Your task to perform on an android device: See recent photos Image 0: 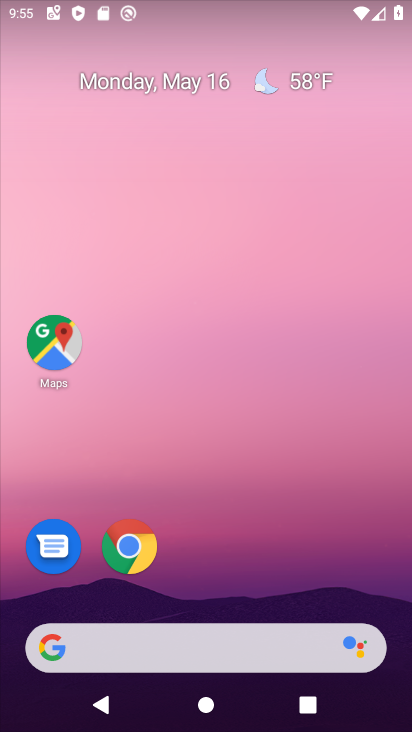
Step 0: drag from (244, 569) to (259, 105)
Your task to perform on an android device: See recent photos Image 1: 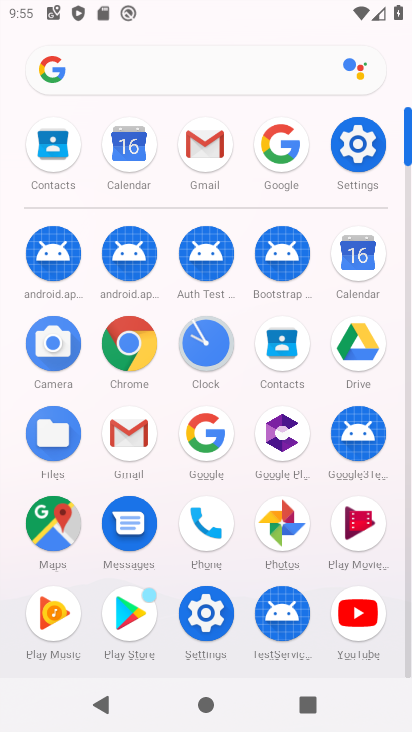
Step 1: drag from (240, 482) to (267, 349)
Your task to perform on an android device: See recent photos Image 2: 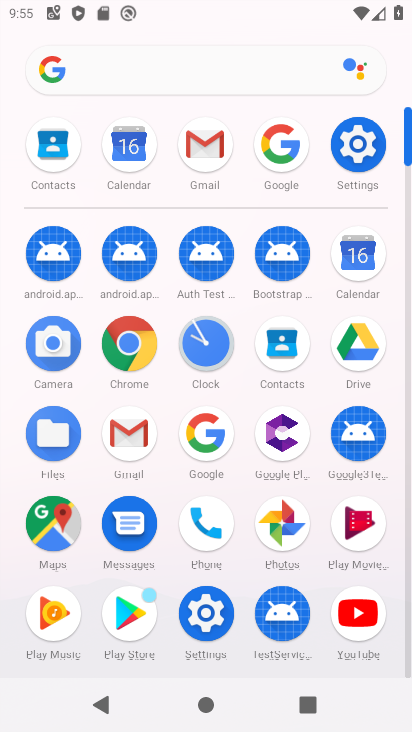
Step 2: click (283, 523)
Your task to perform on an android device: See recent photos Image 3: 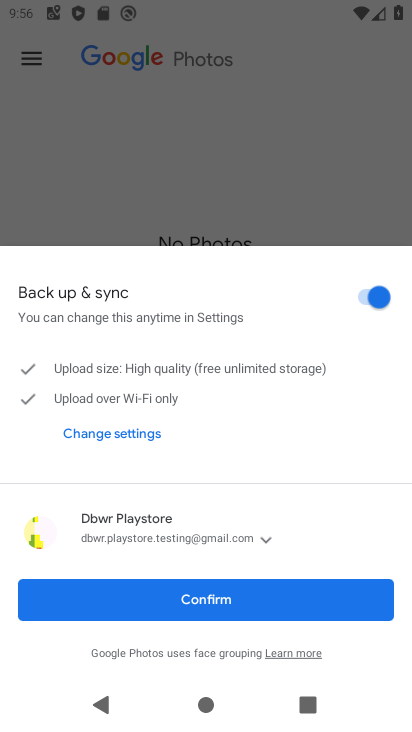
Step 3: click (202, 596)
Your task to perform on an android device: See recent photos Image 4: 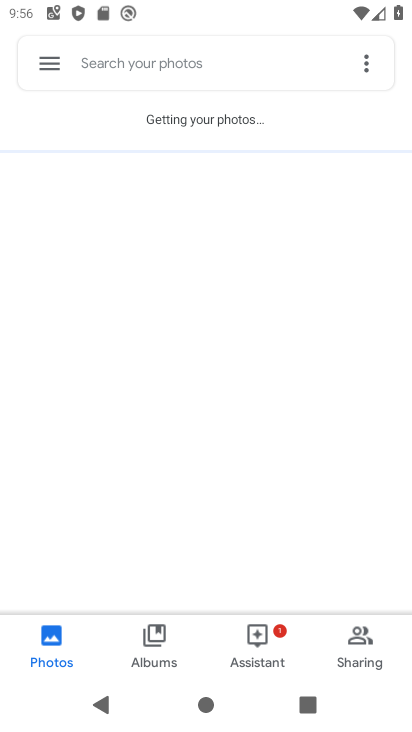
Step 4: click (160, 628)
Your task to perform on an android device: See recent photos Image 5: 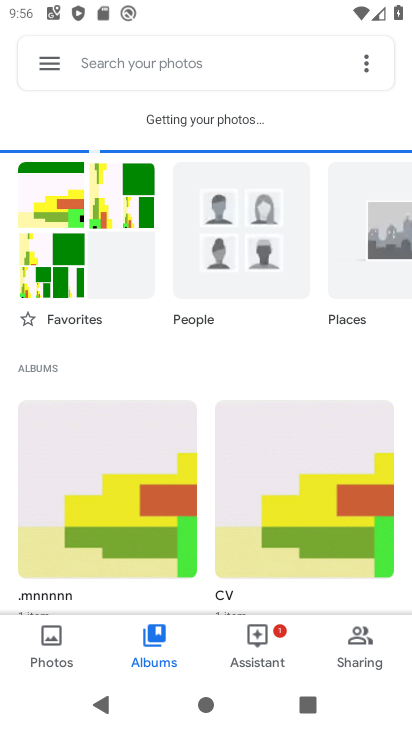
Step 5: click (59, 222)
Your task to perform on an android device: See recent photos Image 6: 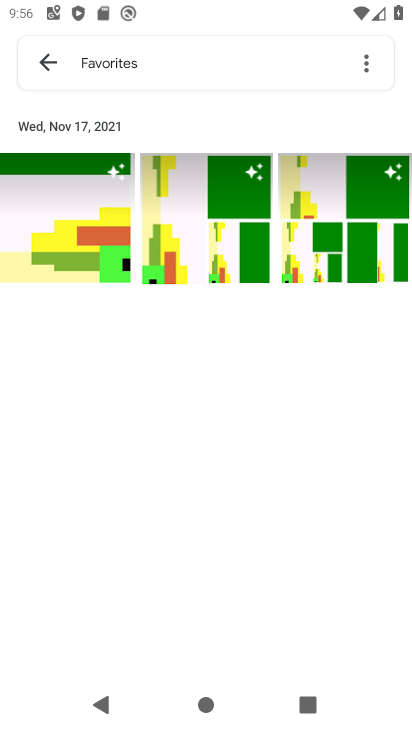
Step 6: task complete